Your task to perform on an android device: Open the calendar app, open the side menu, and click the "Day" option Image 0: 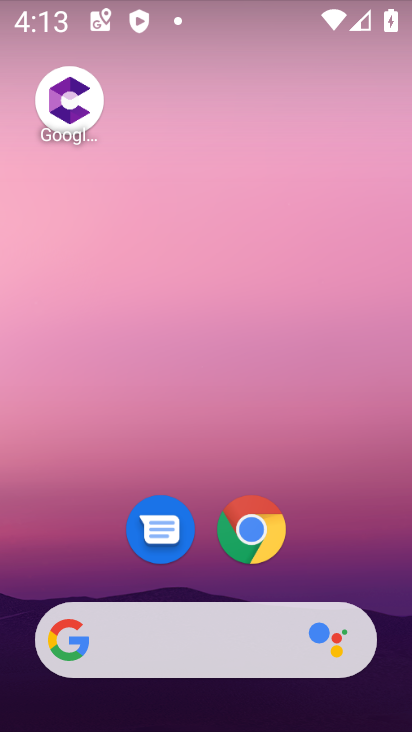
Step 0: drag from (208, 574) to (170, 80)
Your task to perform on an android device: Open the calendar app, open the side menu, and click the "Day" option Image 1: 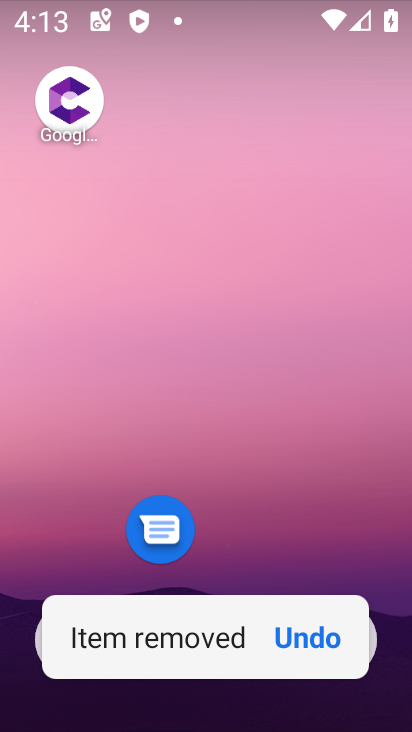
Step 1: click (301, 637)
Your task to perform on an android device: Open the calendar app, open the side menu, and click the "Day" option Image 2: 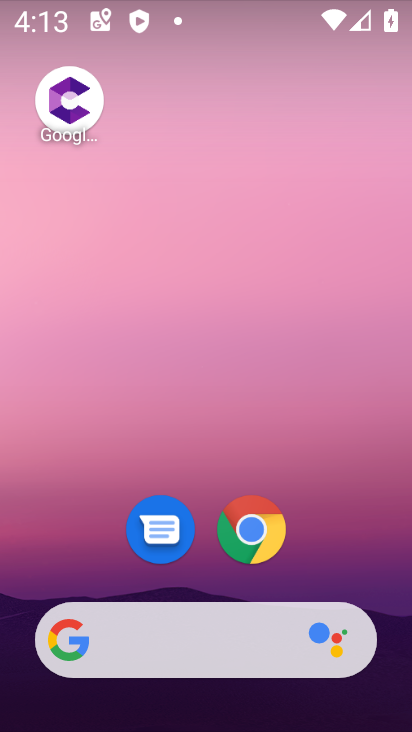
Step 2: drag from (333, 565) to (320, 33)
Your task to perform on an android device: Open the calendar app, open the side menu, and click the "Day" option Image 3: 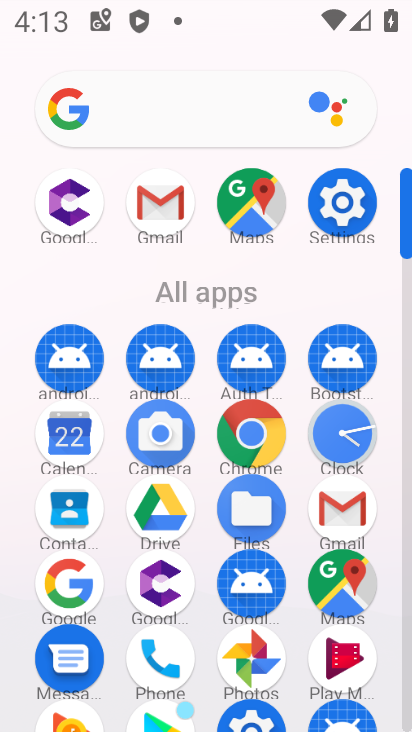
Step 3: click (68, 433)
Your task to perform on an android device: Open the calendar app, open the side menu, and click the "Day" option Image 4: 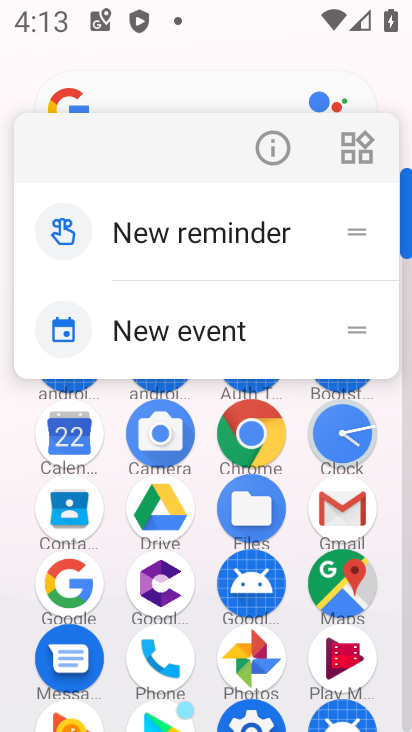
Step 4: click (68, 433)
Your task to perform on an android device: Open the calendar app, open the side menu, and click the "Day" option Image 5: 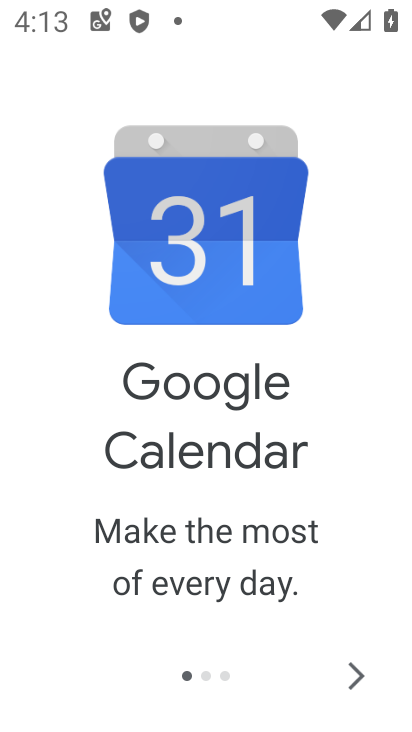
Step 5: click (361, 670)
Your task to perform on an android device: Open the calendar app, open the side menu, and click the "Day" option Image 6: 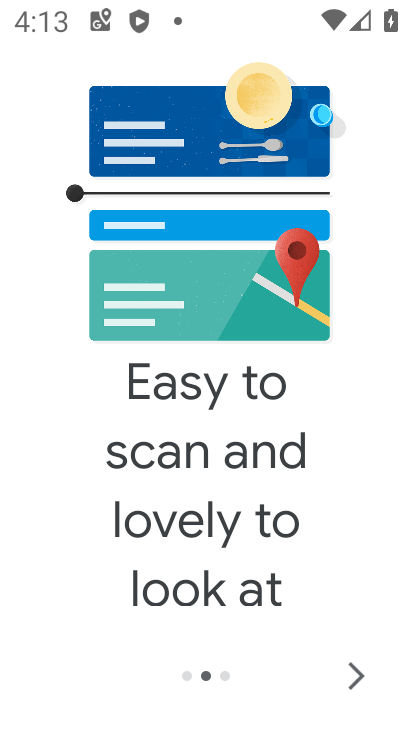
Step 6: click (358, 668)
Your task to perform on an android device: Open the calendar app, open the side menu, and click the "Day" option Image 7: 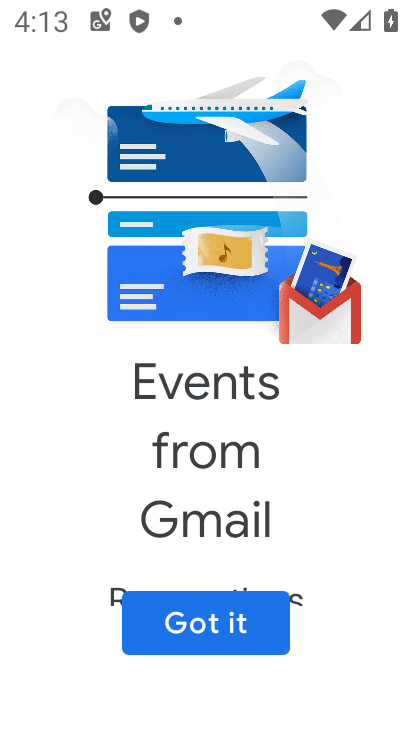
Step 7: click (225, 629)
Your task to perform on an android device: Open the calendar app, open the side menu, and click the "Day" option Image 8: 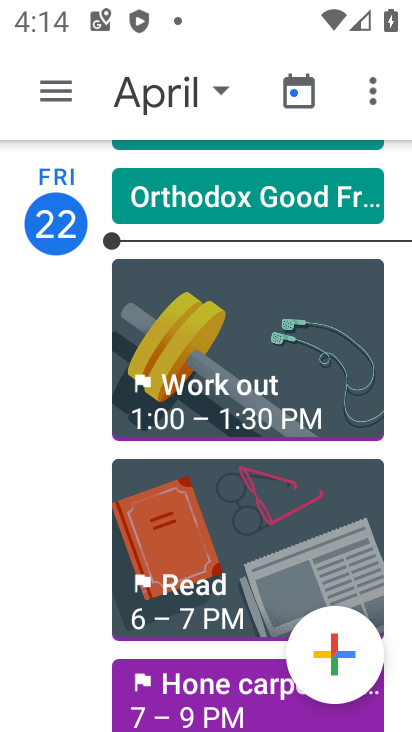
Step 8: click (56, 95)
Your task to perform on an android device: Open the calendar app, open the side menu, and click the "Day" option Image 9: 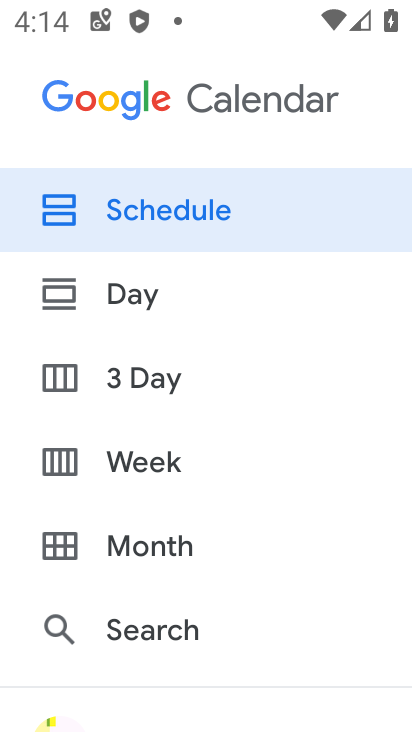
Step 9: click (95, 293)
Your task to perform on an android device: Open the calendar app, open the side menu, and click the "Day" option Image 10: 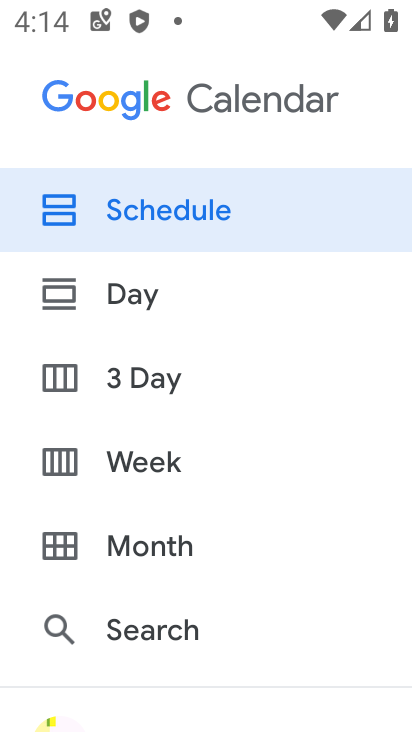
Step 10: click (93, 282)
Your task to perform on an android device: Open the calendar app, open the side menu, and click the "Day" option Image 11: 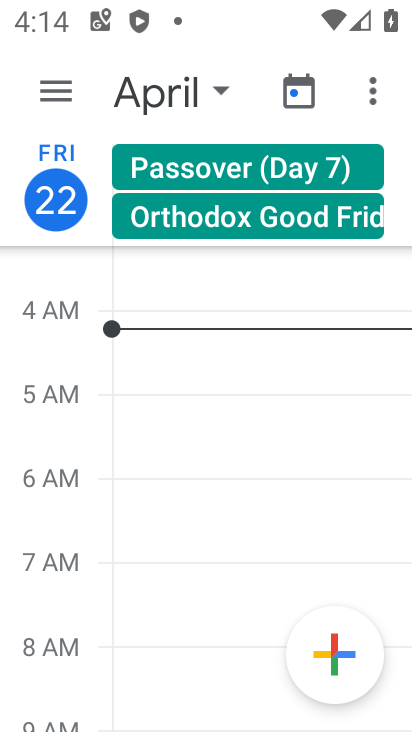
Step 11: task complete